Your task to perform on an android device: Find coffee shops on Maps Image 0: 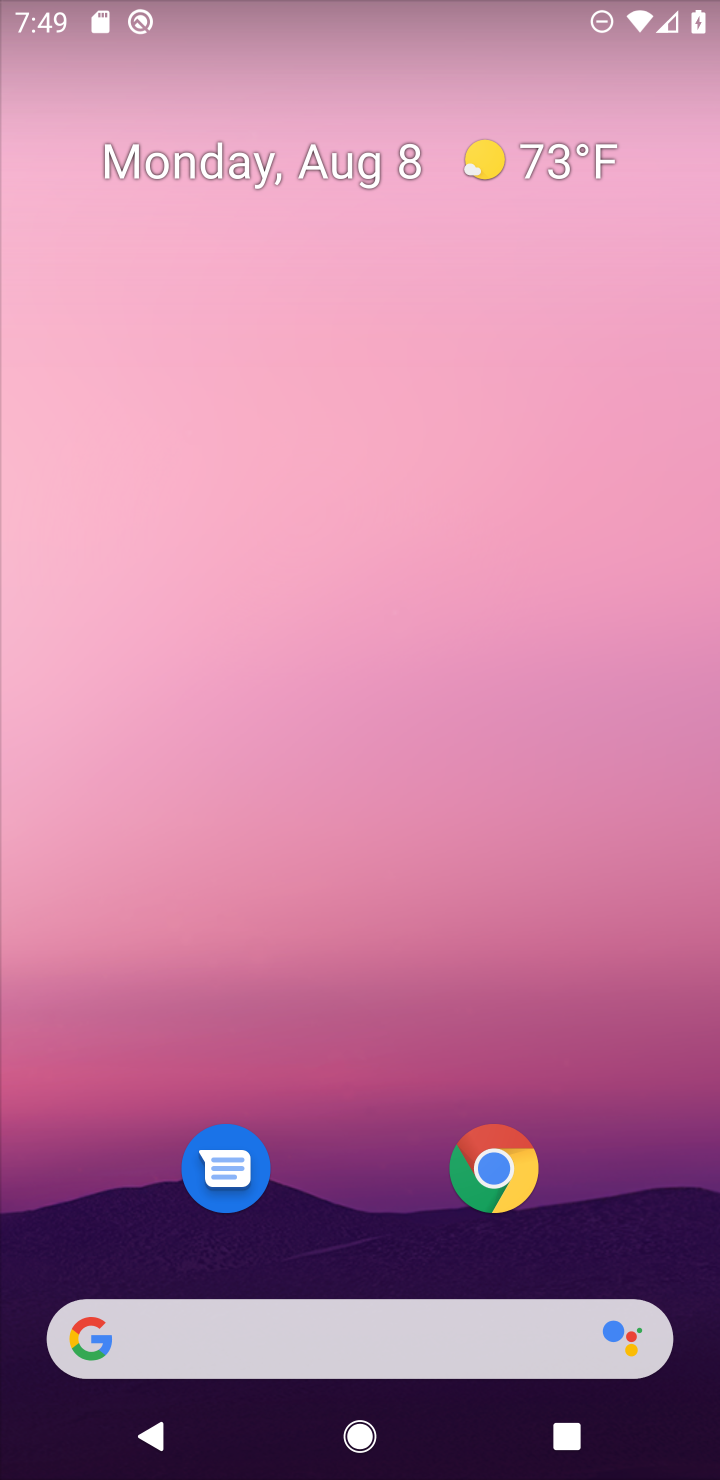
Step 0: press home button
Your task to perform on an android device: Find coffee shops on Maps Image 1: 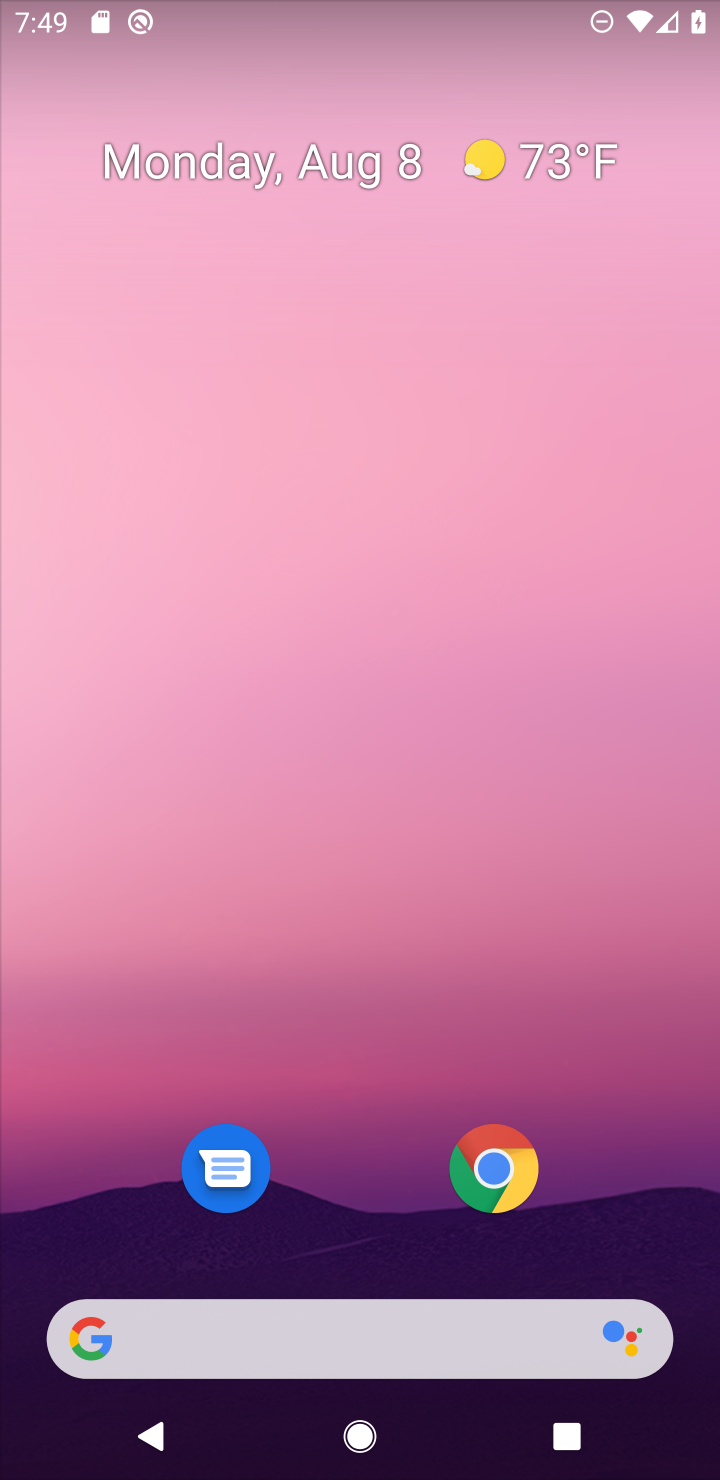
Step 1: drag from (324, 1316) to (670, 150)
Your task to perform on an android device: Find coffee shops on Maps Image 2: 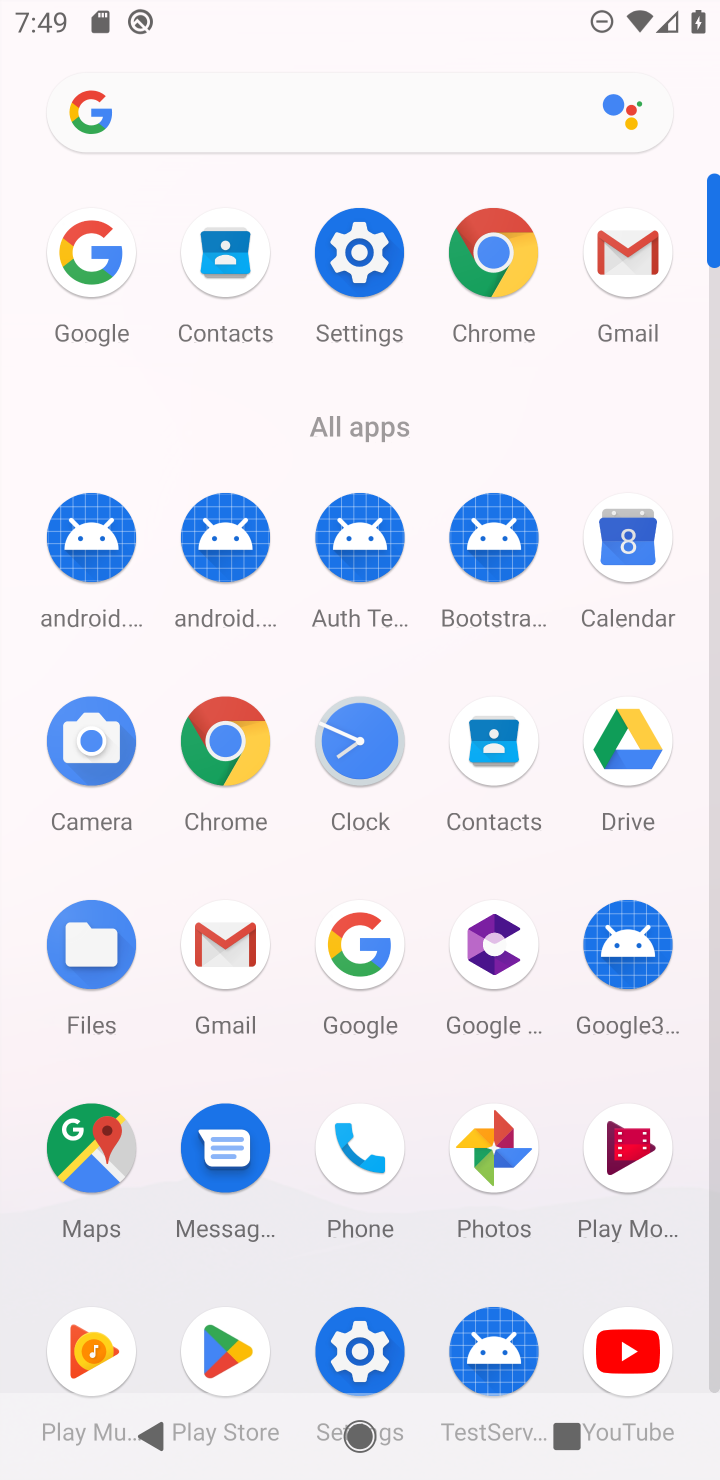
Step 2: drag from (77, 1147) to (138, 880)
Your task to perform on an android device: Find coffee shops on Maps Image 3: 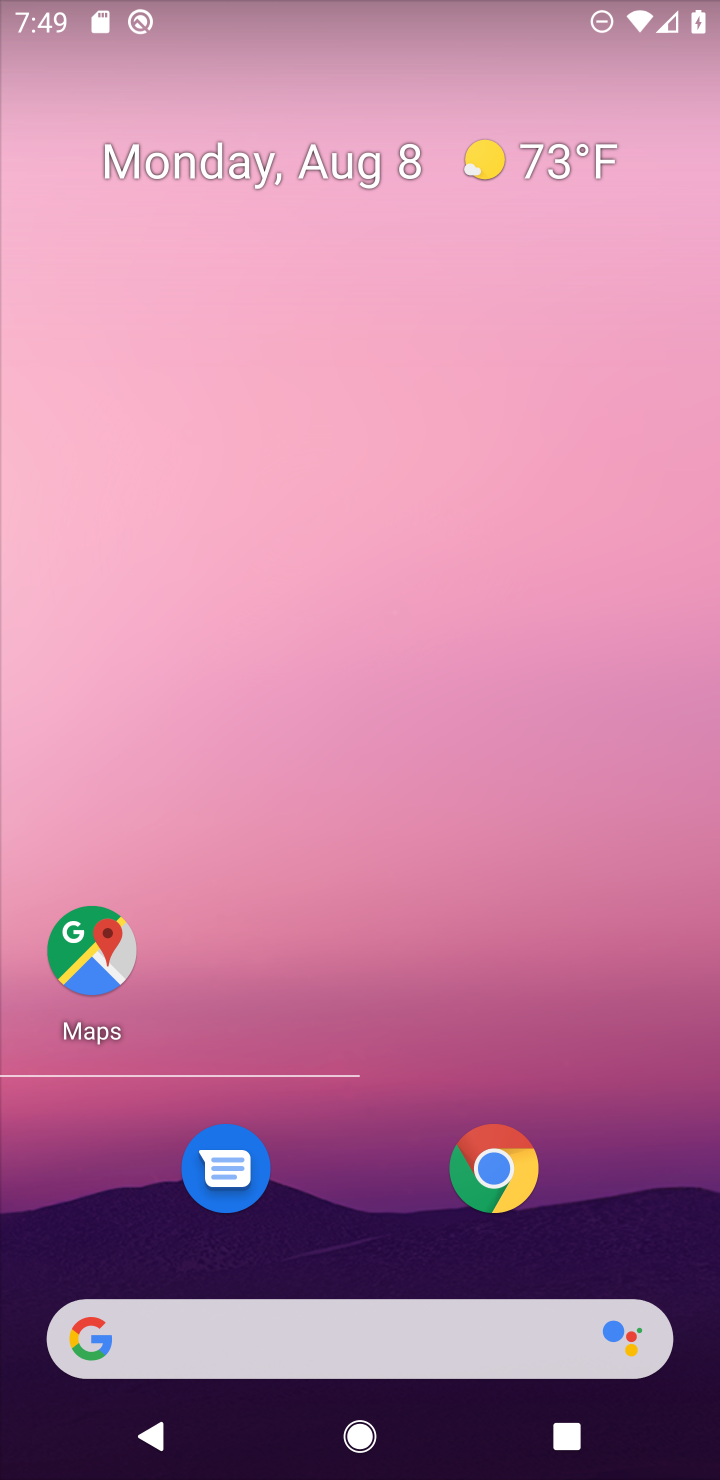
Step 3: click (93, 937)
Your task to perform on an android device: Find coffee shops on Maps Image 4: 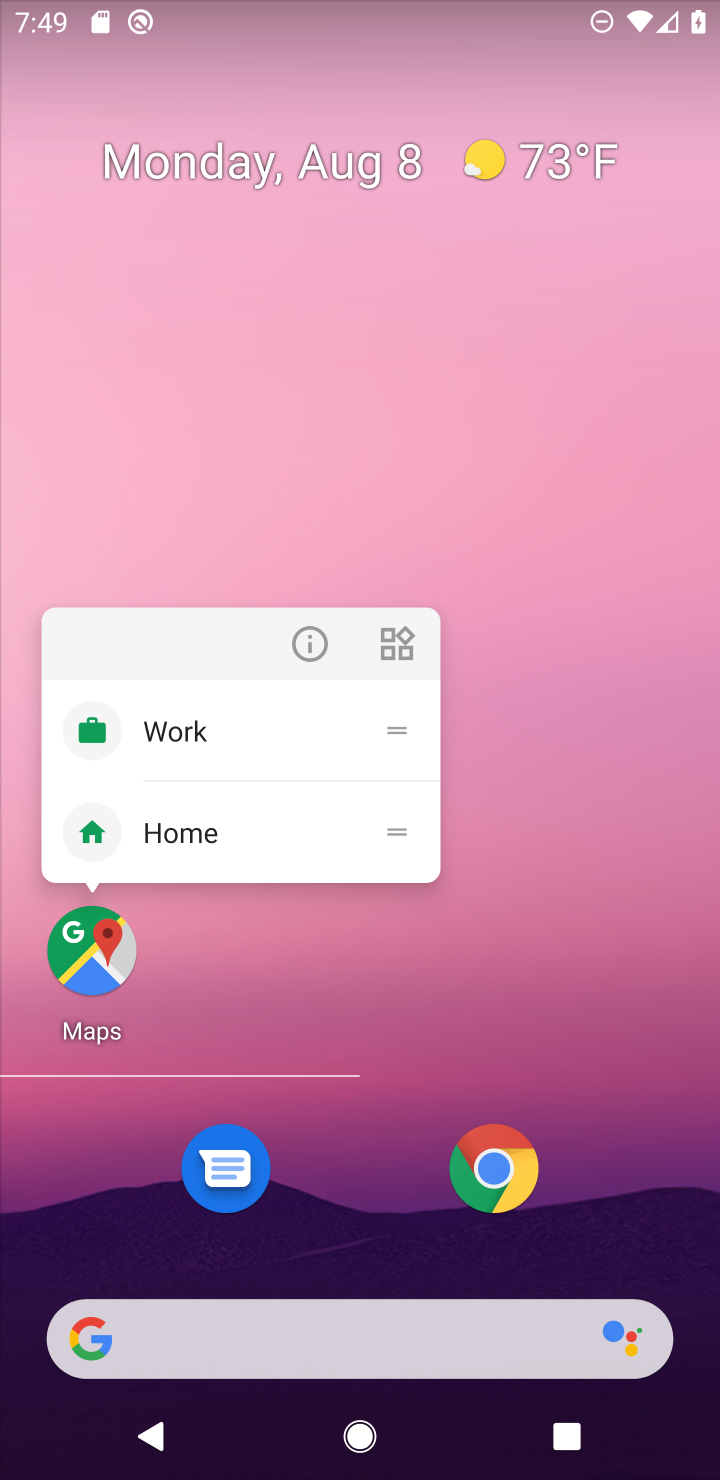
Step 4: click (93, 953)
Your task to perform on an android device: Find coffee shops on Maps Image 5: 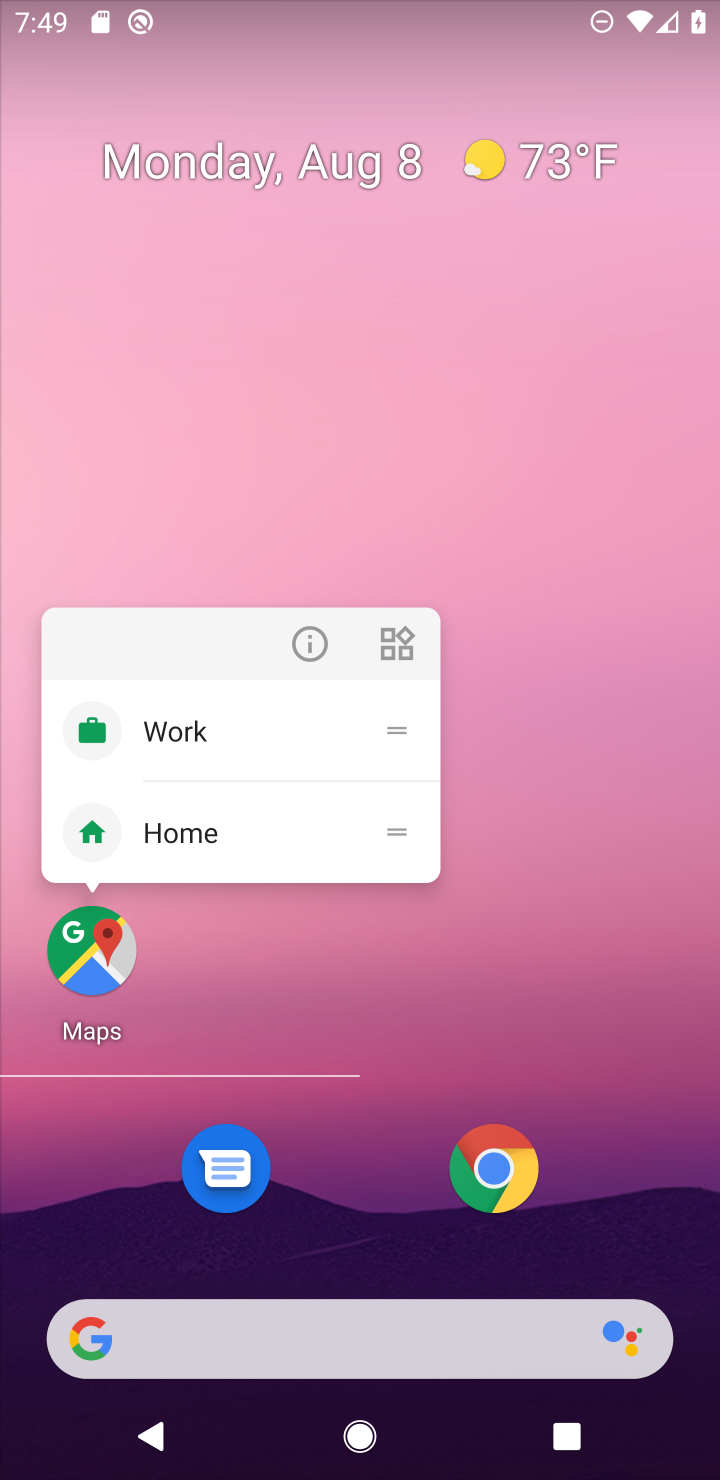
Step 5: click (95, 944)
Your task to perform on an android device: Find coffee shops on Maps Image 6: 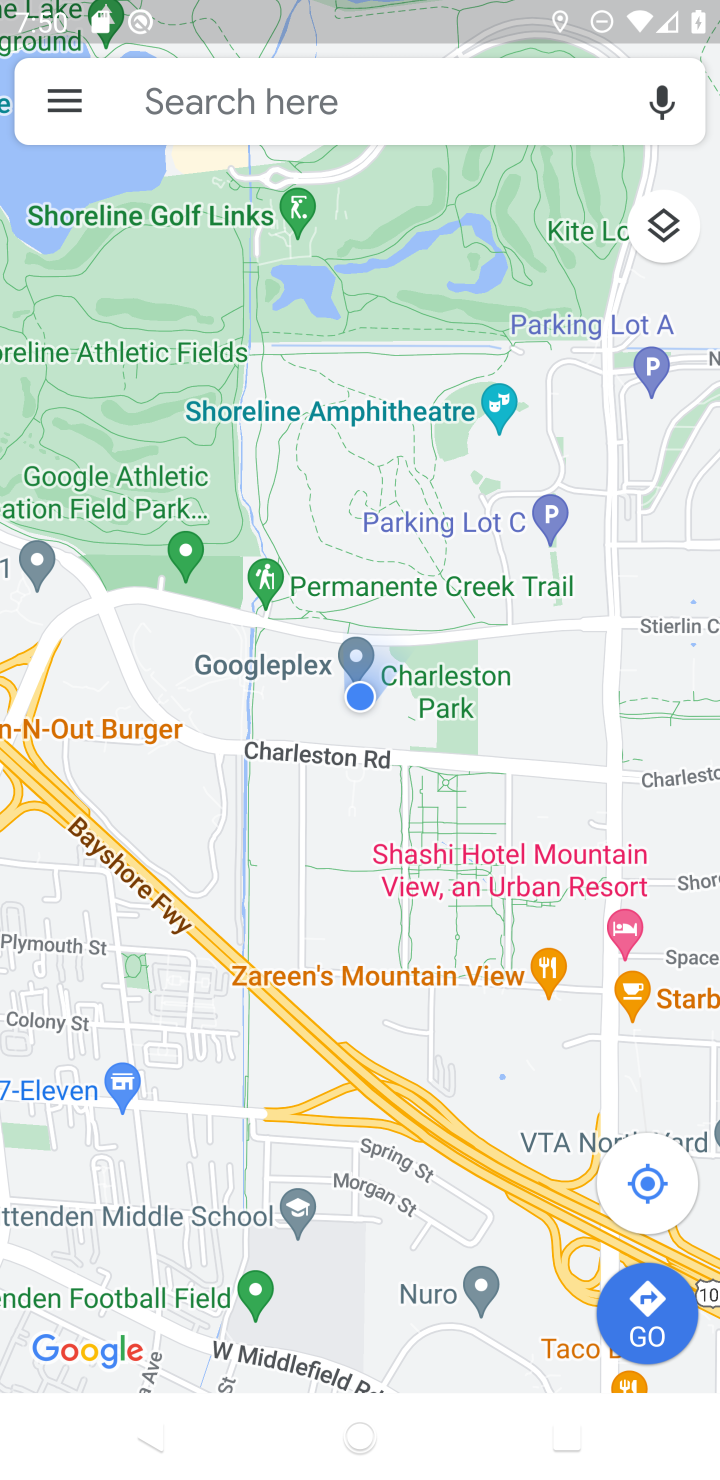
Step 6: click (355, 95)
Your task to perform on an android device: Find coffee shops on Maps Image 7: 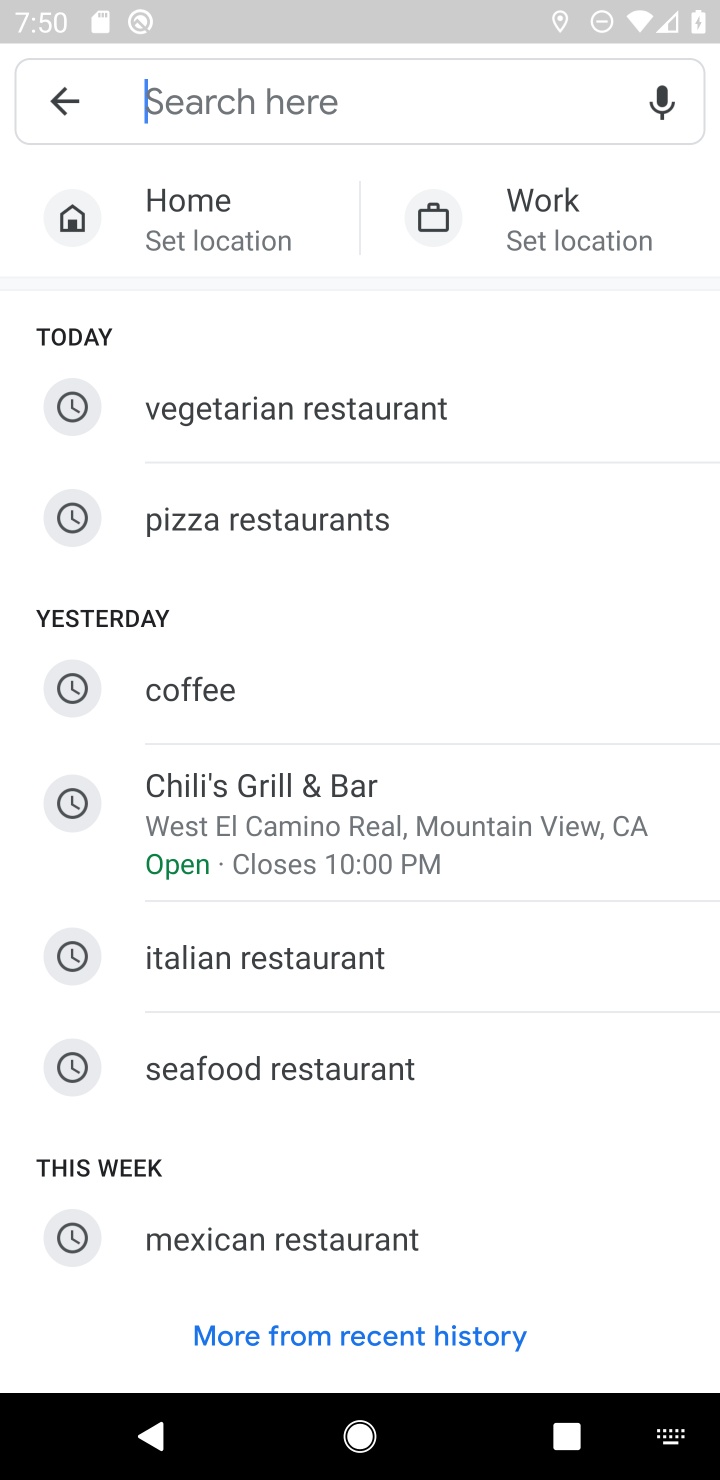
Step 7: click (191, 680)
Your task to perform on an android device: Find coffee shops on Maps Image 8: 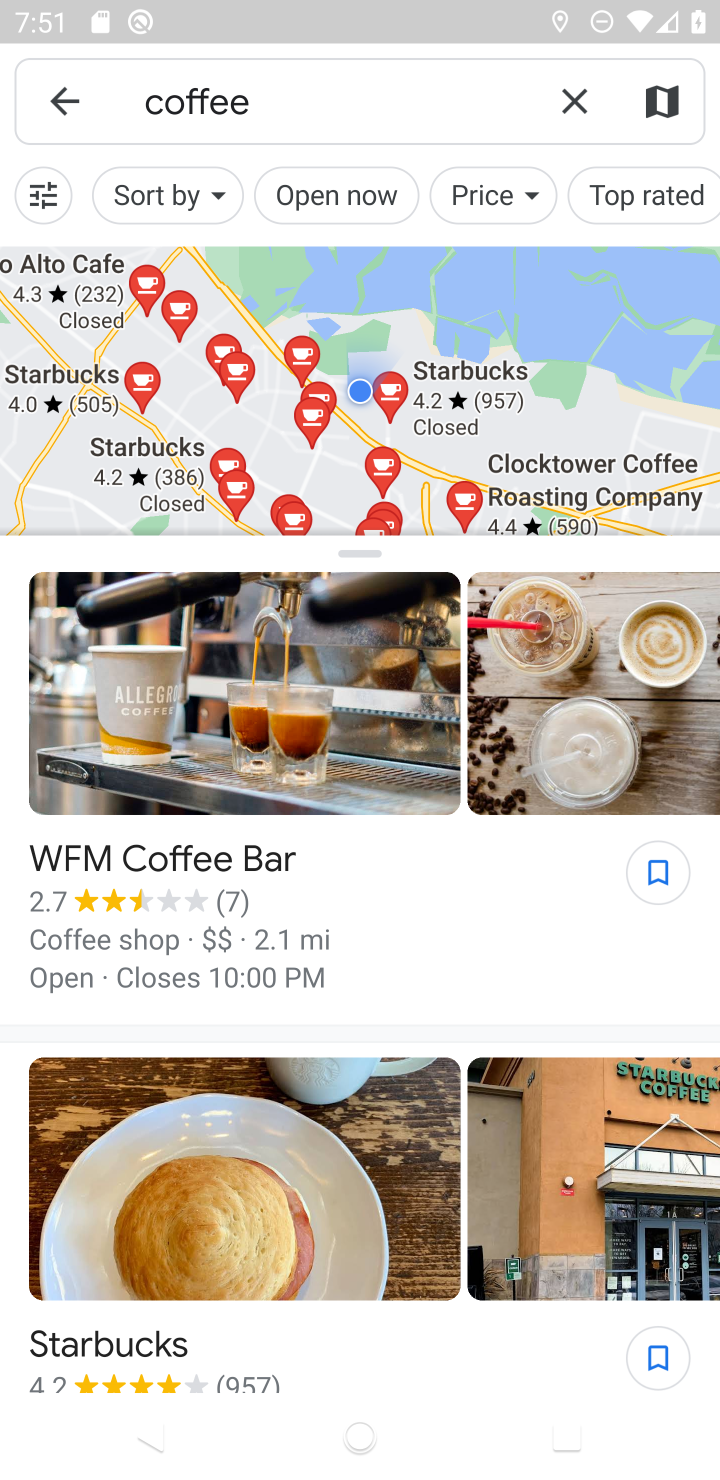
Step 8: task complete